Your task to perform on an android device: Go to Yahoo.com Image 0: 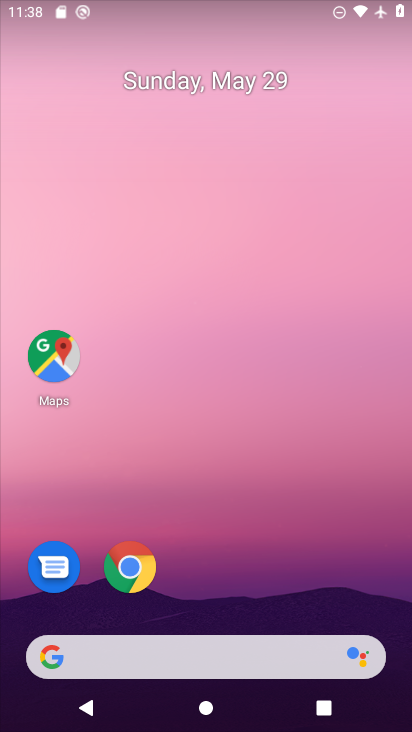
Step 0: click (133, 566)
Your task to perform on an android device: Go to Yahoo.com Image 1: 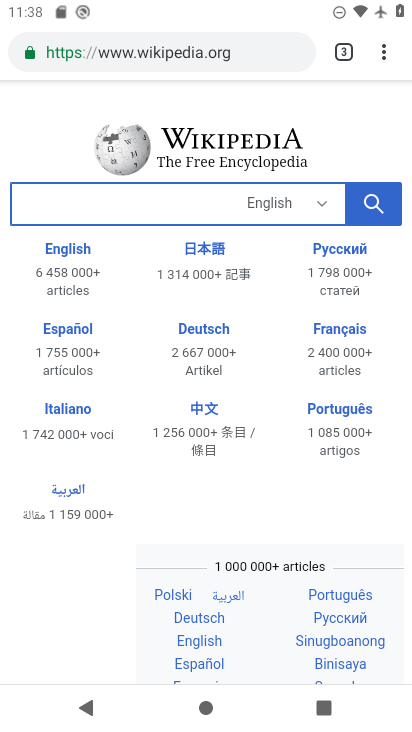
Step 1: click (278, 42)
Your task to perform on an android device: Go to Yahoo.com Image 2: 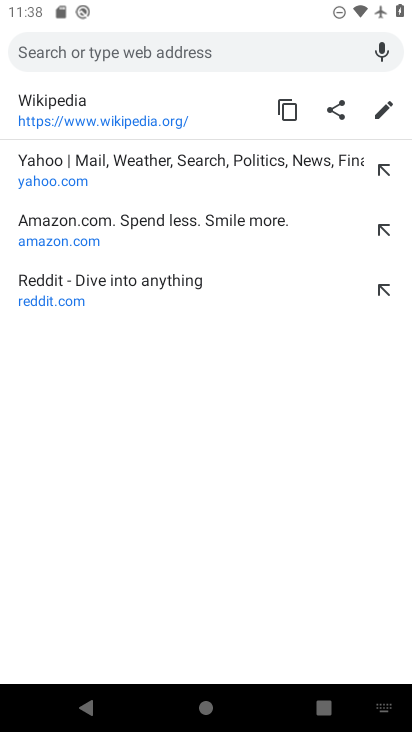
Step 2: type "yahoo.com"
Your task to perform on an android device: Go to Yahoo.com Image 3: 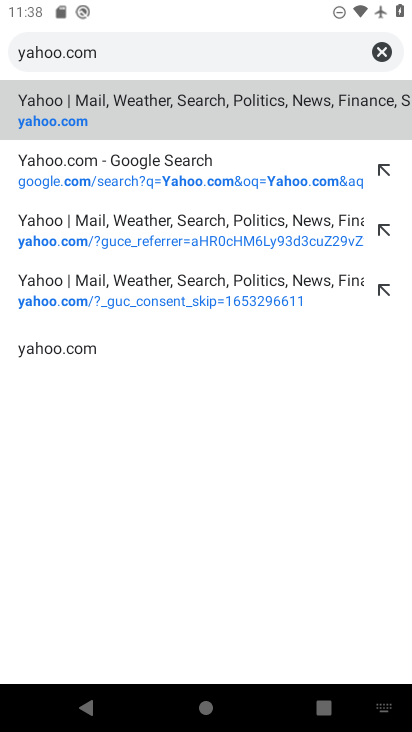
Step 3: click (91, 110)
Your task to perform on an android device: Go to Yahoo.com Image 4: 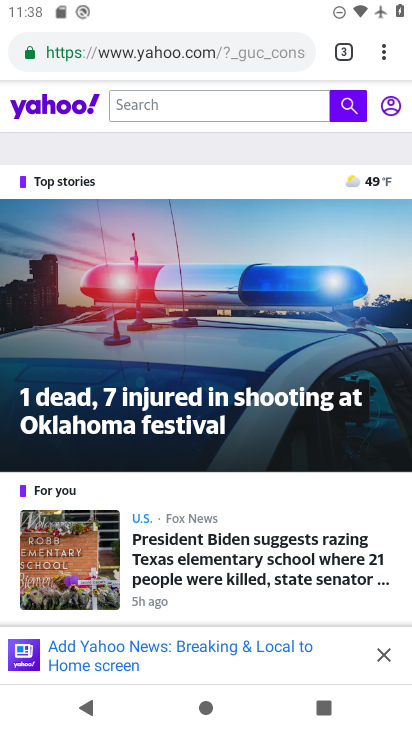
Step 4: task complete